Your task to perform on an android device: Search for vegetarian restaurants on Maps Image 0: 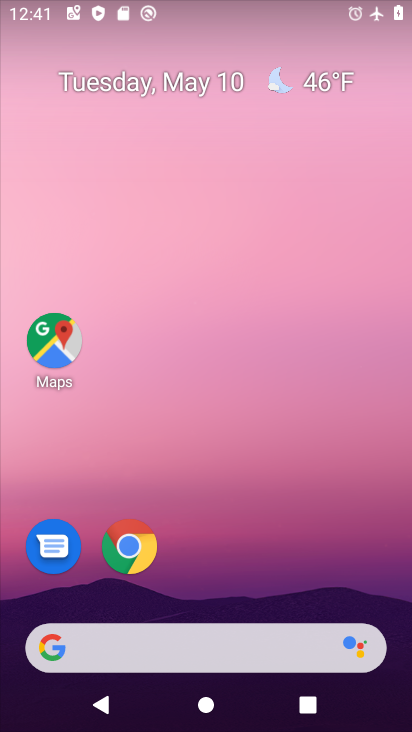
Step 0: click (57, 339)
Your task to perform on an android device: Search for vegetarian restaurants on Maps Image 1: 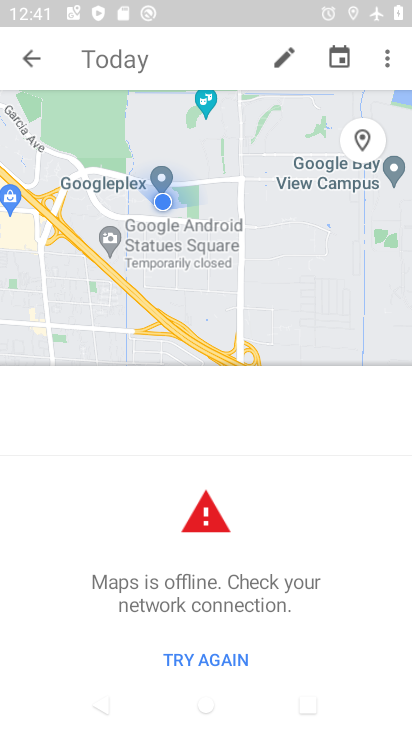
Step 1: click (33, 59)
Your task to perform on an android device: Search for vegetarian restaurants on Maps Image 2: 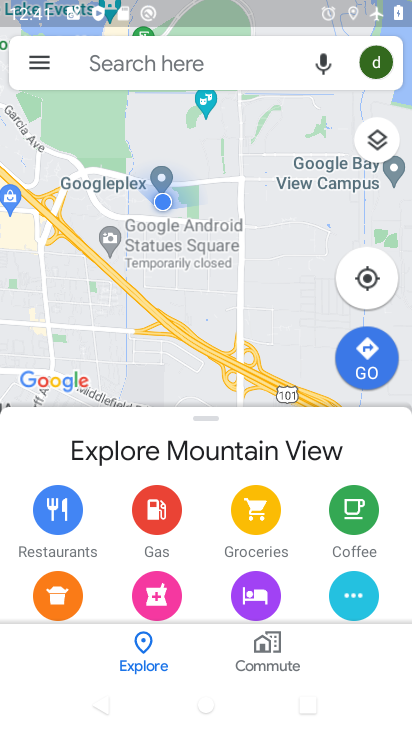
Step 2: click (133, 64)
Your task to perform on an android device: Search for vegetarian restaurants on Maps Image 3: 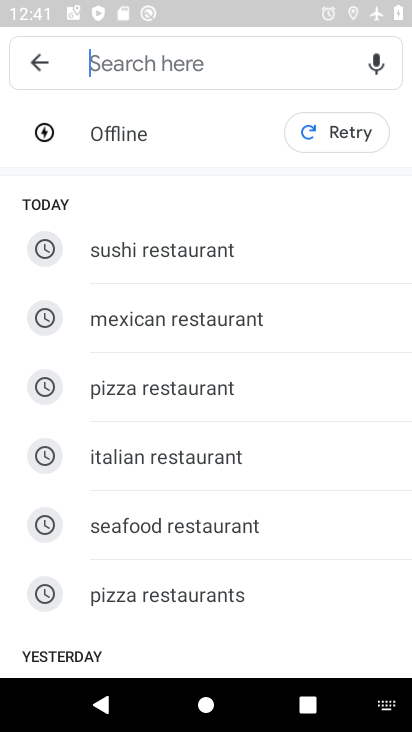
Step 3: type "vegetarian restaurant"
Your task to perform on an android device: Search for vegetarian restaurants on Maps Image 4: 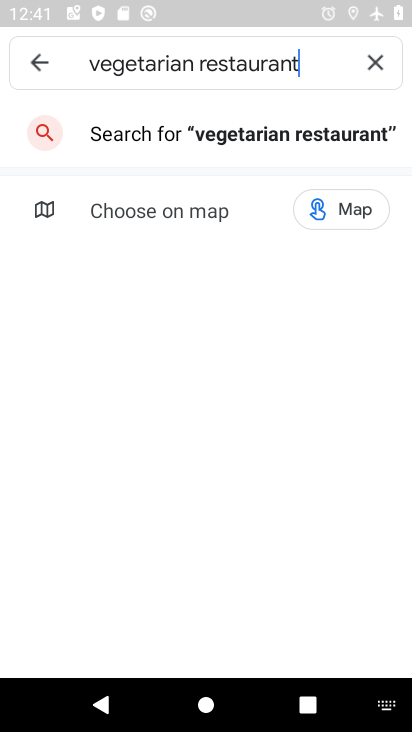
Step 4: click (287, 123)
Your task to perform on an android device: Search for vegetarian restaurants on Maps Image 5: 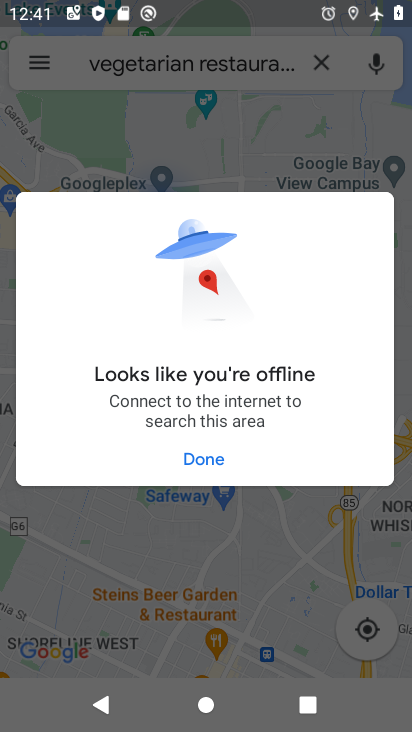
Step 5: task complete